Your task to perform on an android device: open app "Venmo" Image 0: 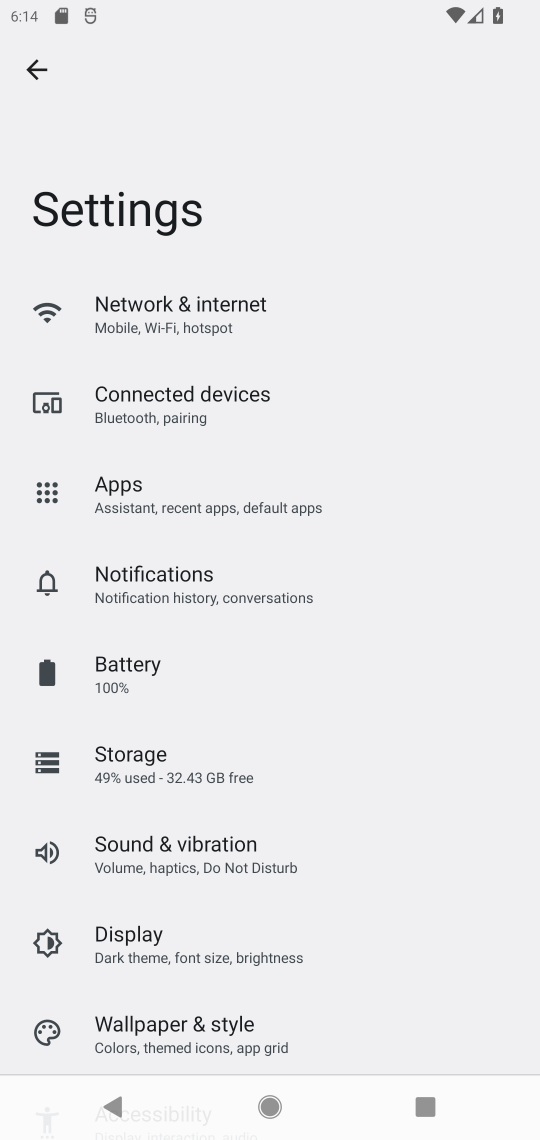
Step 0: press home button
Your task to perform on an android device: open app "Venmo" Image 1: 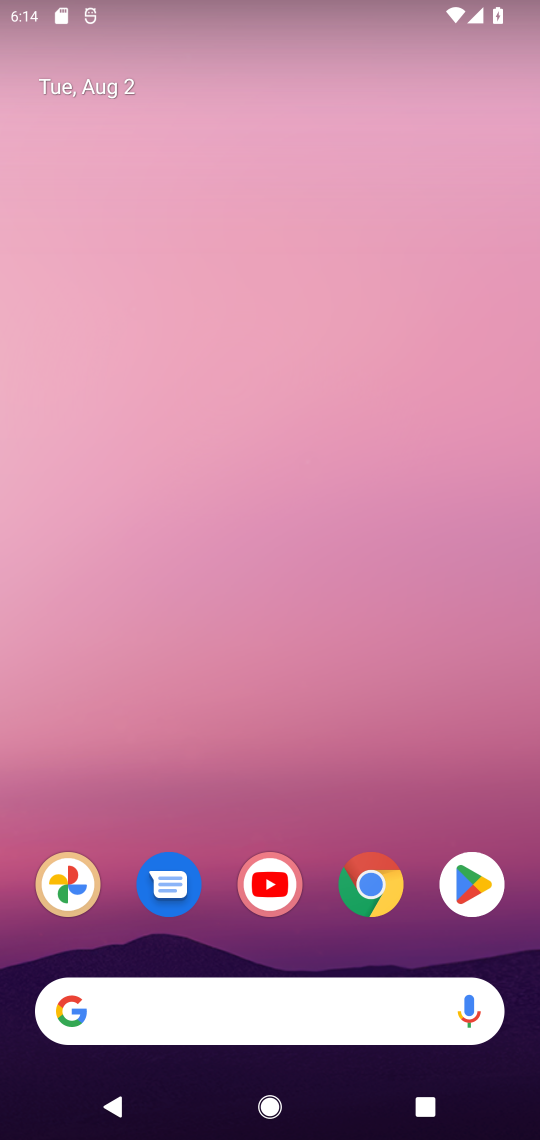
Step 1: press home button
Your task to perform on an android device: open app "Venmo" Image 2: 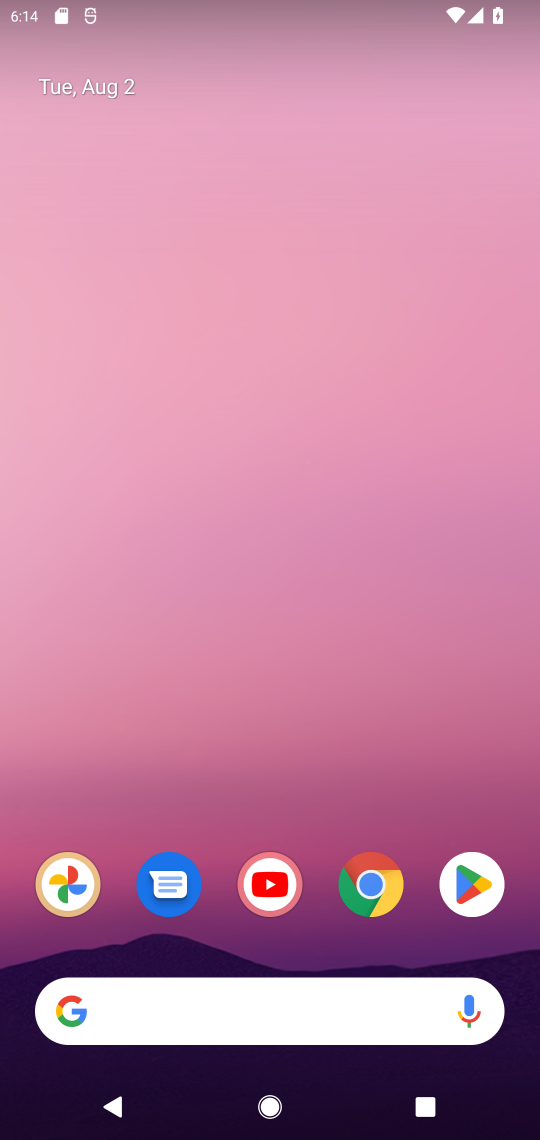
Step 2: click (477, 876)
Your task to perform on an android device: open app "Venmo" Image 3: 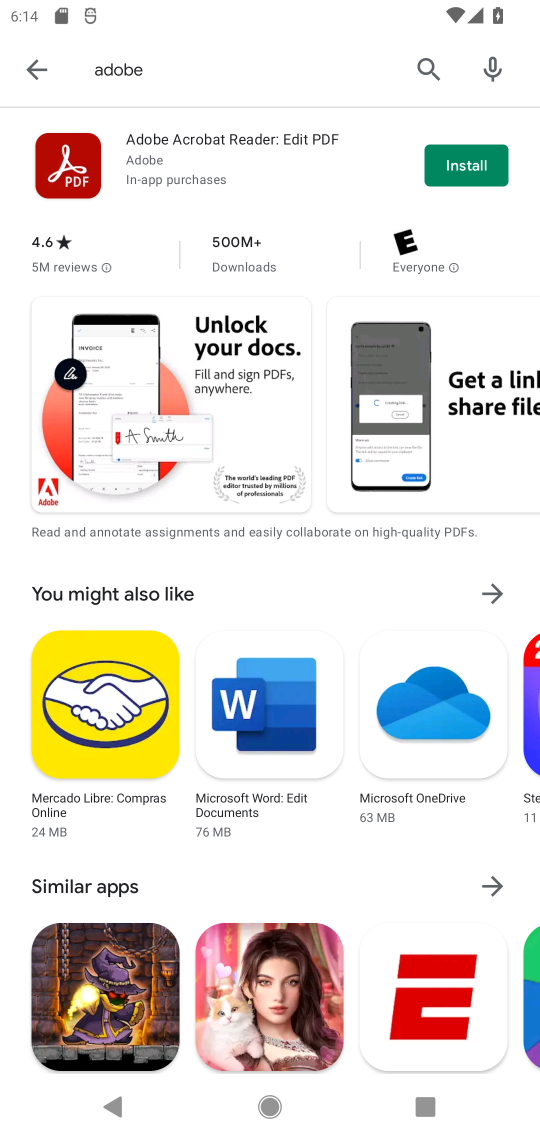
Step 3: click (420, 65)
Your task to perform on an android device: open app "Venmo" Image 4: 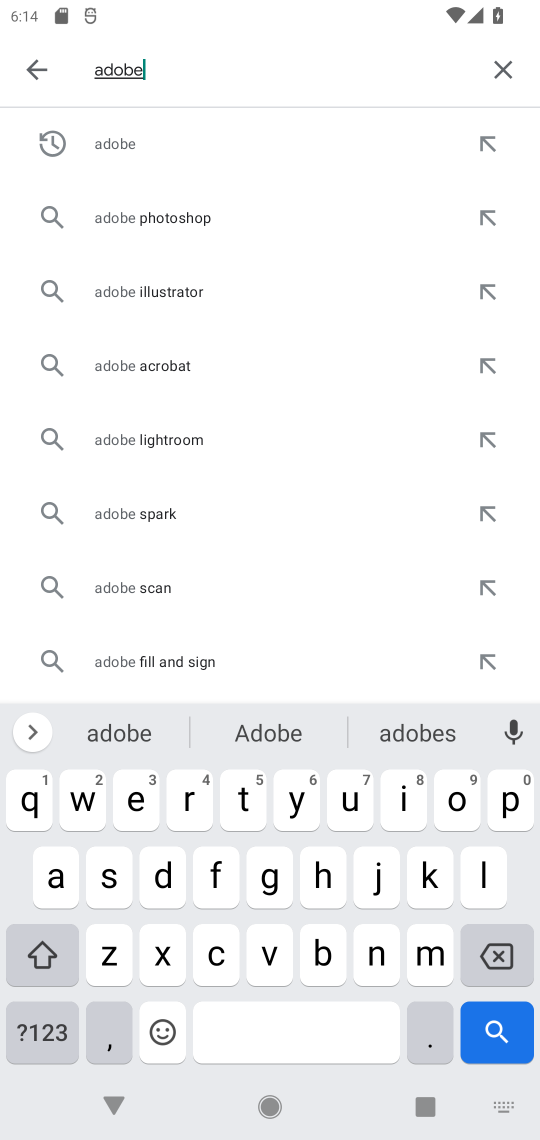
Step 4: click (504, 70)
Your task to perform on an android device: open app "Venmo" Image 5: 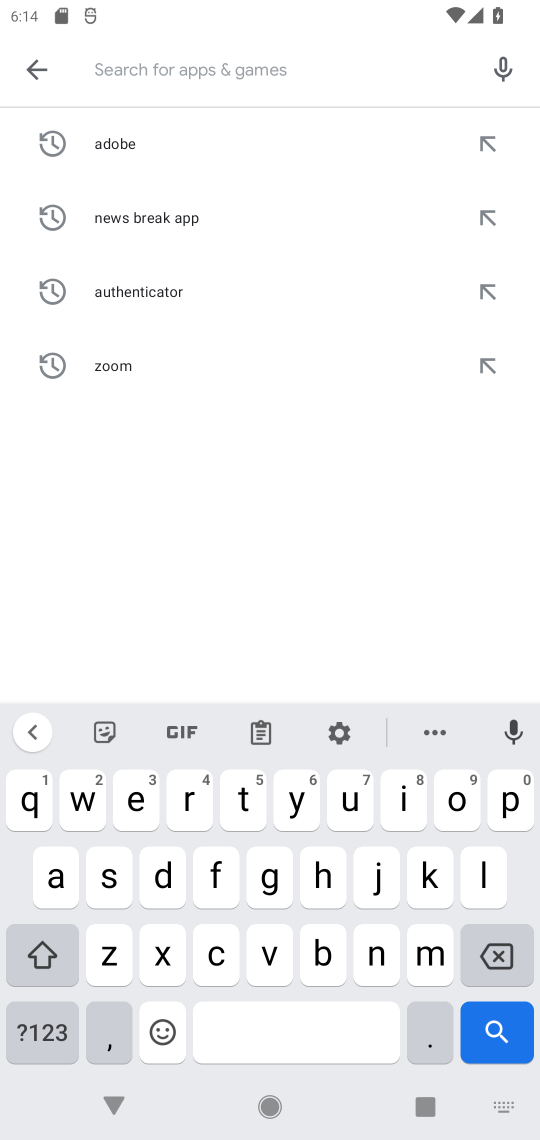
Step 5: click (266, 965)
Your task to perform on an android device: open app "Venmo" Image 6: 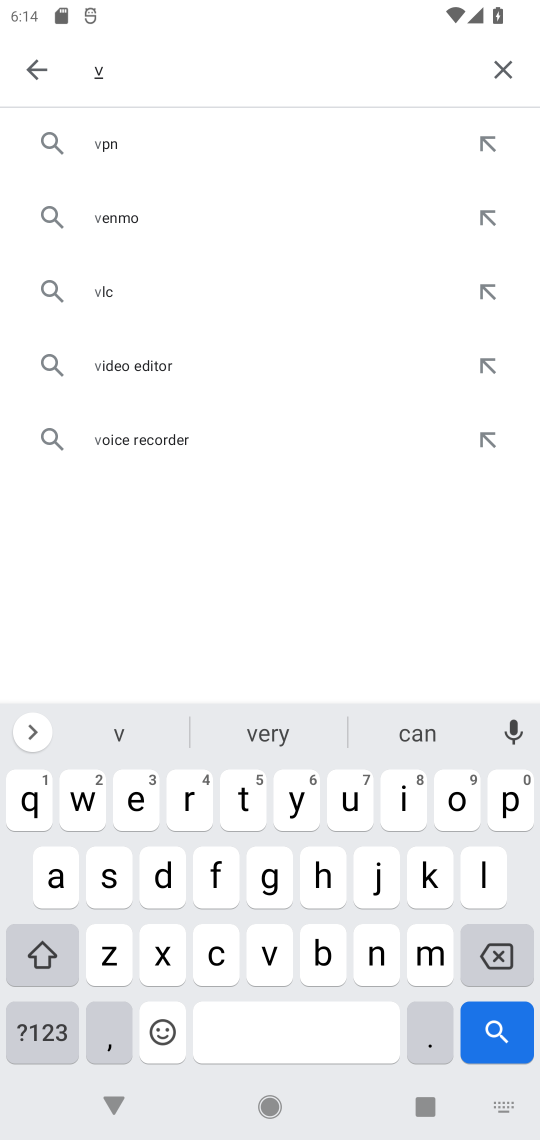
Step 6: click (126, 798)
Your task to perform on an android device: open app "Venmo" Image 7: 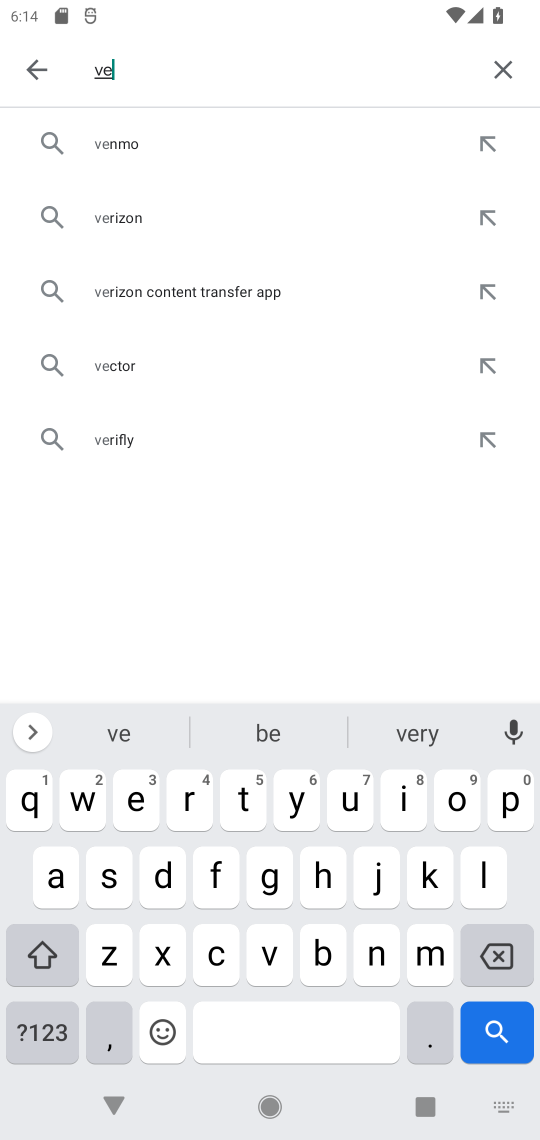
Step 7: click (358, 959)
Your task to perform on an android device: open app "Venmo" Image 8: 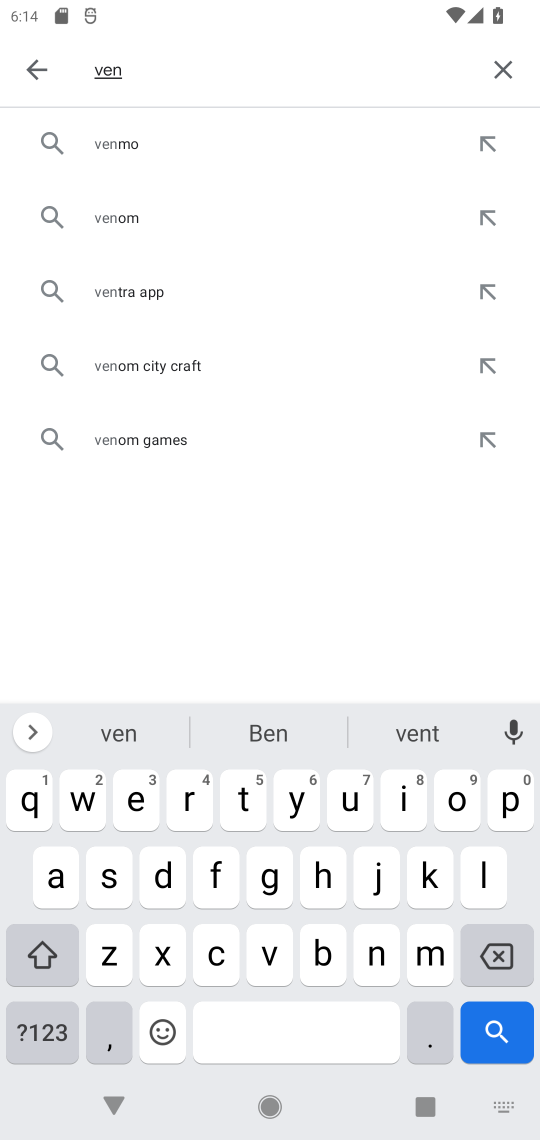
Step 8: click (431, 959)
Your task to perform on an android device: open app "Venmo" Image 9: 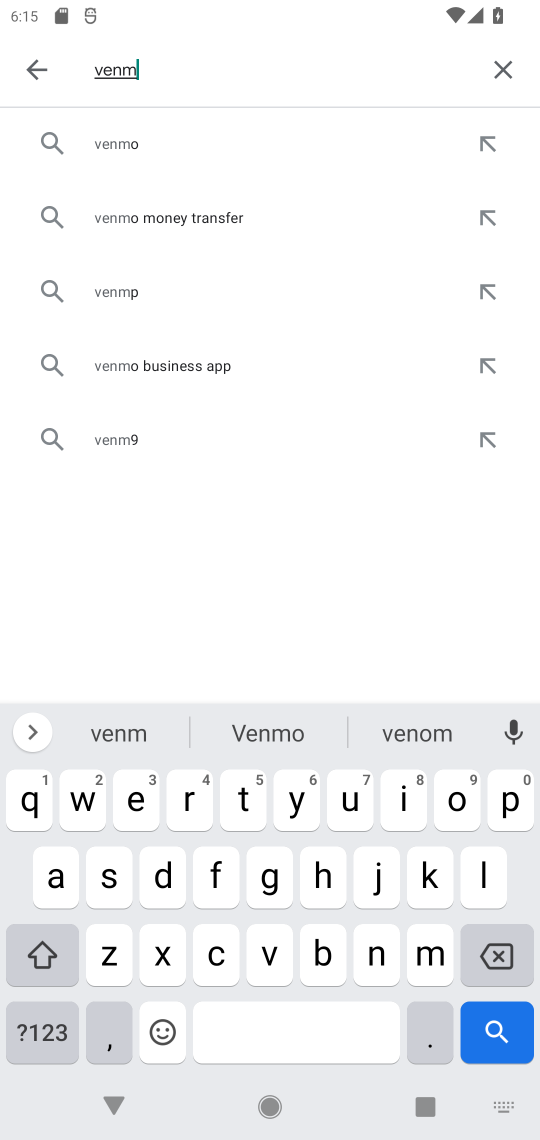
Step 9: click (116, 142)
Your task to perform on an android device: open app "Venmo" Image 10: 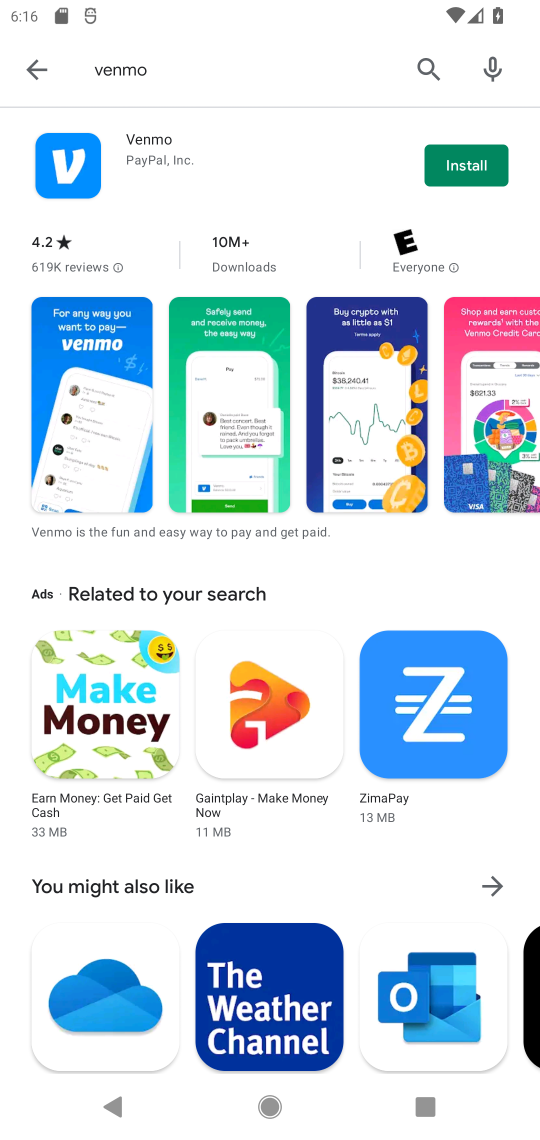
Step 10: task complete